Your task to perform on an android device: Set the phone to "Do not disturb". Image 0: 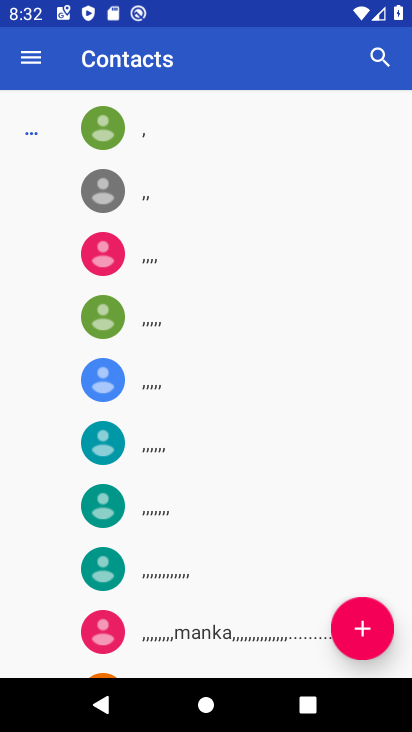
Step 0: press home button
Your task to perform on an android device: Set the phone to "Do not disturb". Image 1: 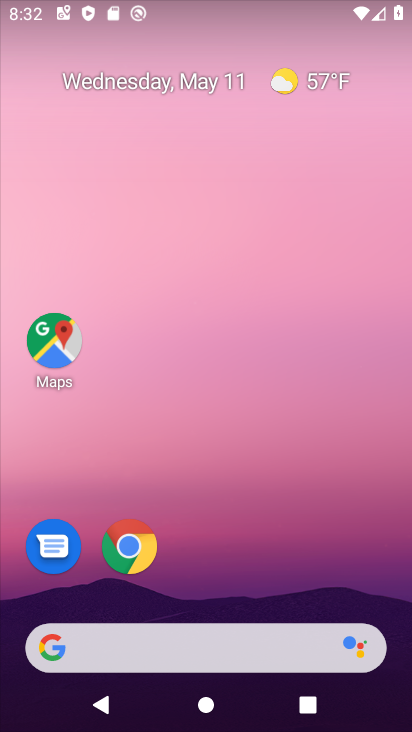
Step 1: drag from (217, 587) to (213, 172)
Your task to perform on an android device: Set the phone to "Do not disturb". Image 2: 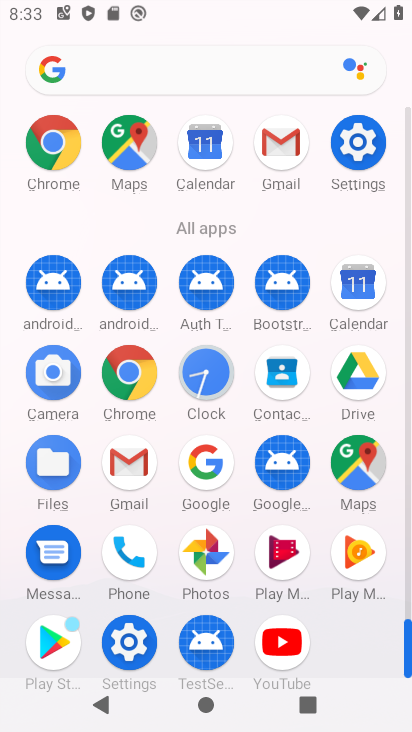
Step 2: click (336, 149)
Your task to perform on an android device: Set the phone to "Do not disturb". Image 3: 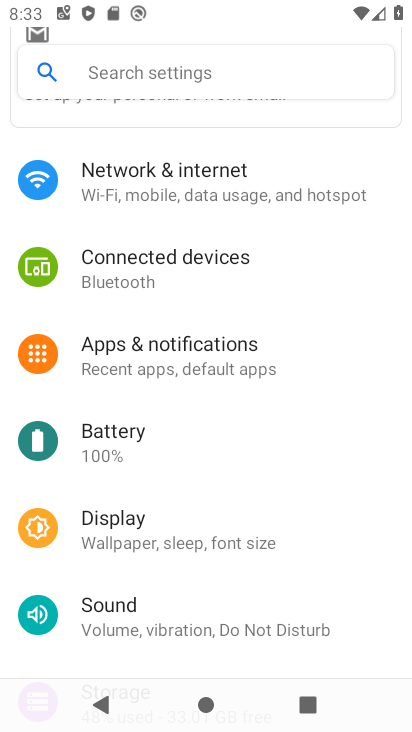
Step 3: click (173, 596)
Your task to perform on an android device: Set the phone to "Do not disturb". Image 4: 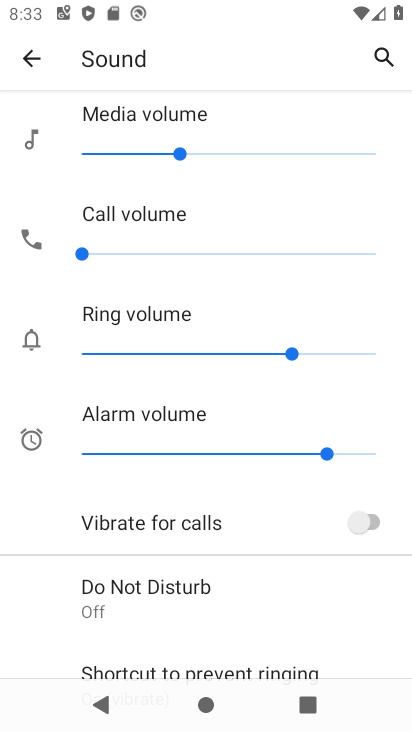
Step 4: click (196, 598)
Your task to perform on an android device: Set the phone to "Do not disturb". Image 5: 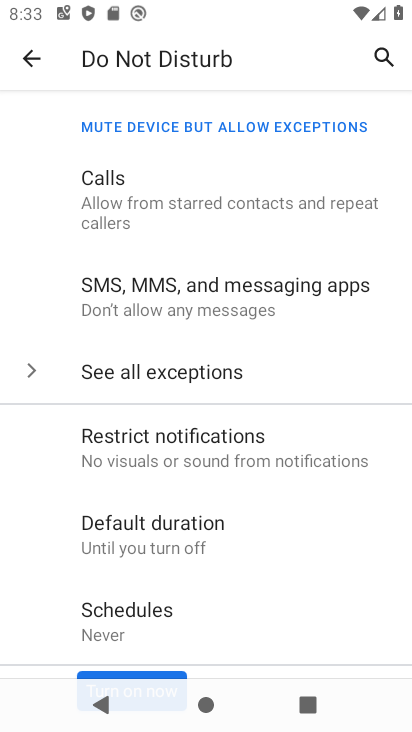
Step 5: drag from (202, 603) to (250, 312)
Your task to perform on an android device: Set the phone to "Do not disturb". Image 6: 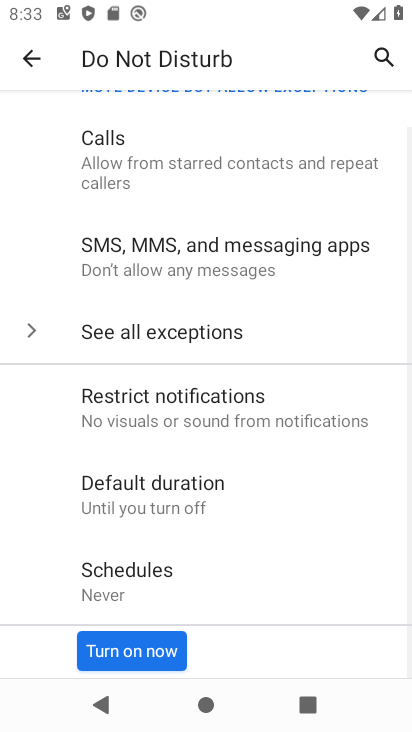
Step 6: click (155, 642)
Your task to perform on an android device: Set the phone to "Do not disturb". Image 7: 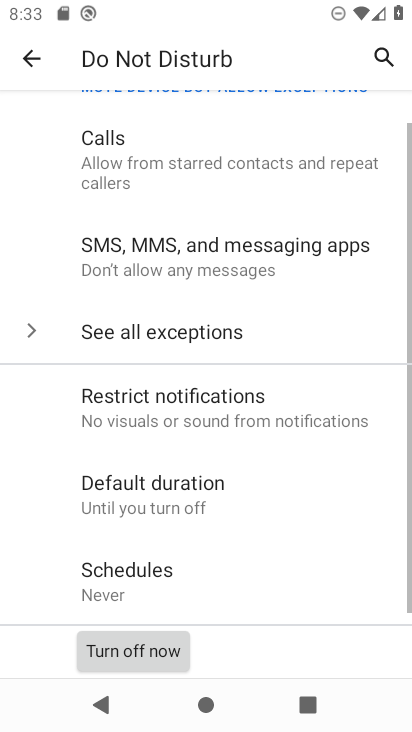
Step 7: task complete